Your task to perform on an android device: Open network settings Image 0: 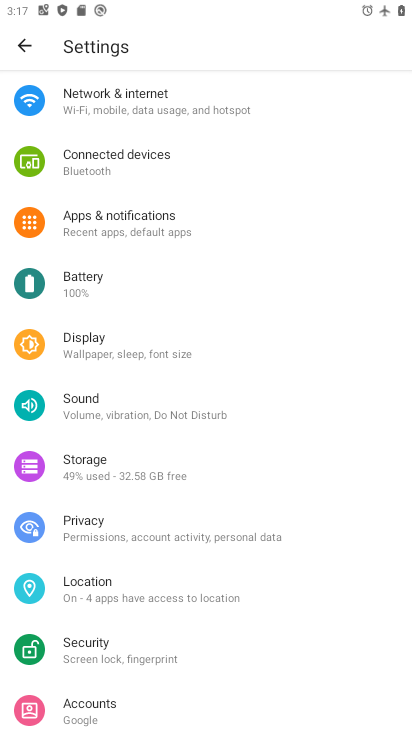
Step 0: click (139, 128)
Your task to perform on an android device: Open network settings Image 1: 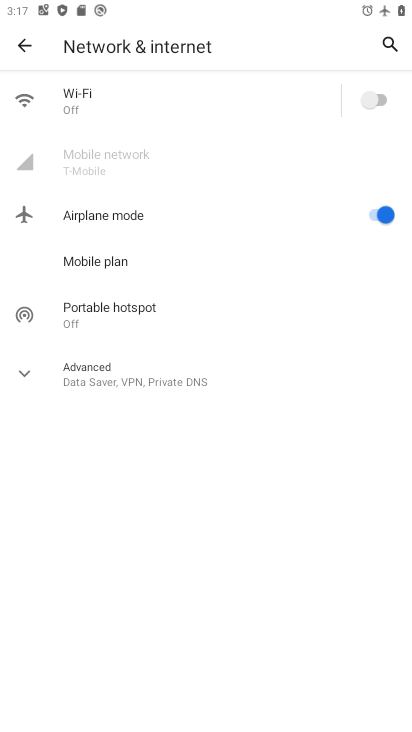
Step 1: click (369, 103)
Your task to perform on an android device: Open network settings Image 2: 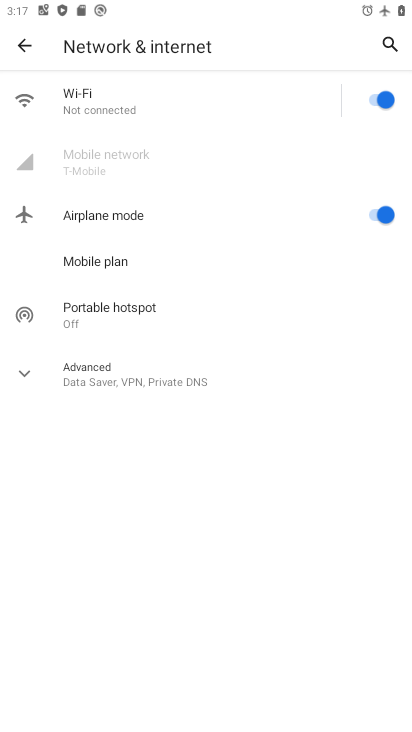
Step 2: click (376, 210)
Your task to perform on an android device: Open network settings Image 3: 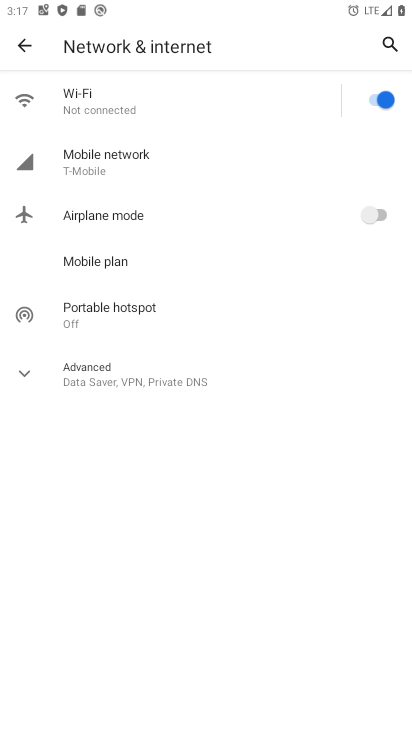
Step 3: task complete